Your task to perform on an android device: toggle notifications settings in the gmail app Image 0: 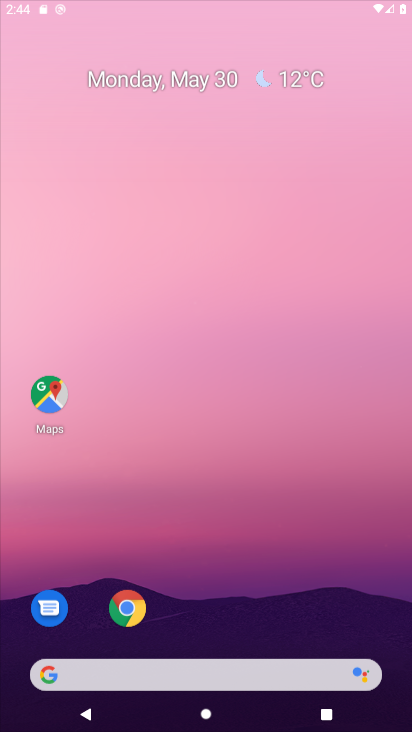
Step 0: click (181, 15)
Your task to perform on an android device: toggle notifications settings in the gmail app Image 1: 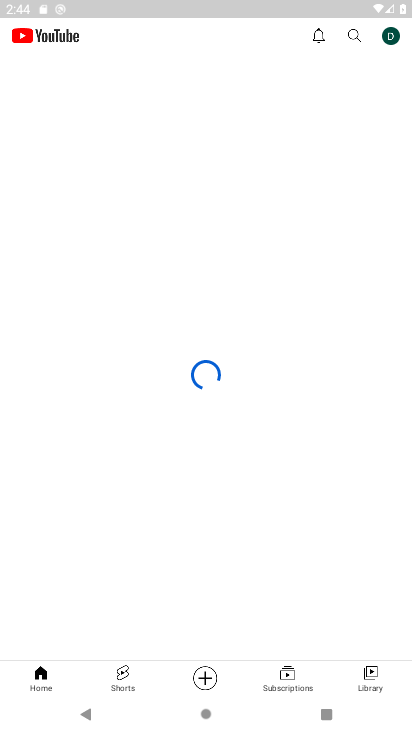
Step 1: press home button
Your task to perform on an android device: toggle notifications settings in the gmail app Image 2: 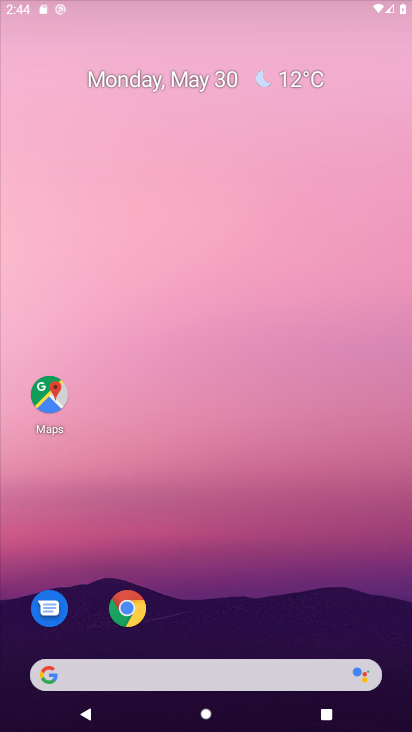
Step 2: drag from (301, 605) to (212, 20)
Your task to perform on an android device: toggle notifications settings in the gmail app Image 3: 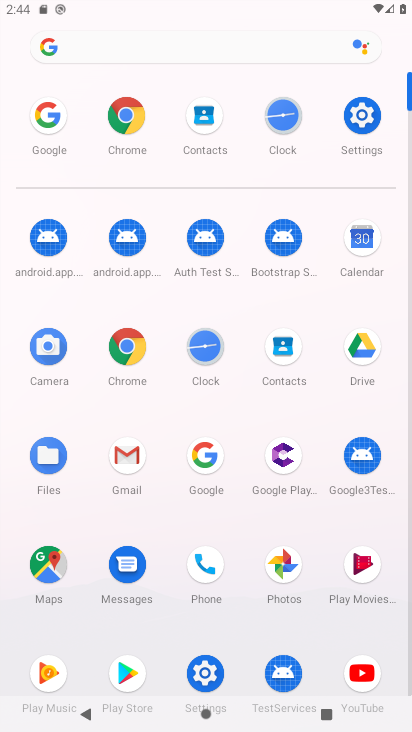
Step 3: click (360, 122)
Your task to perform on an android device: toggle notifications settings in the gmail app Image 4: 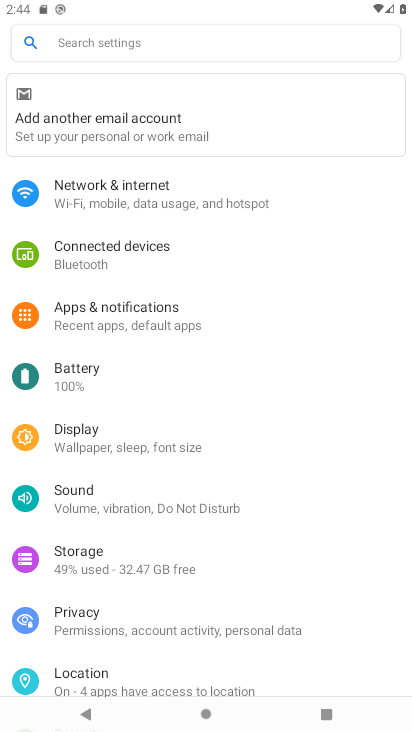
Step 4: press home button
Your task to perform on an android device: toggle notifications settings in the gmail app Image 5: 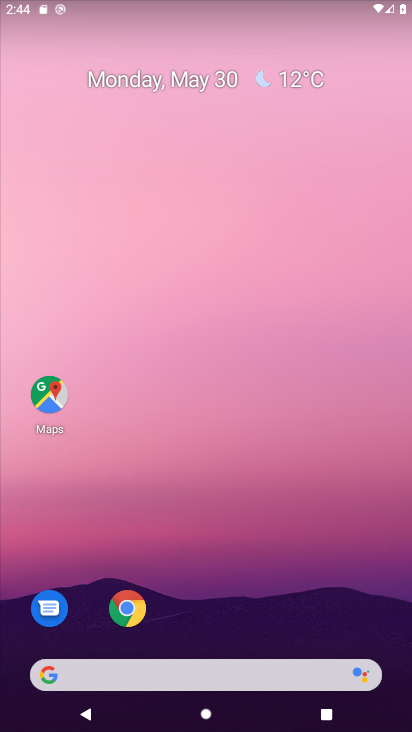
Step 5: drag from (234, 614) to (225, 11)
Your task to perform on an android device: toggle notifications settings in the gmail app Image 6: 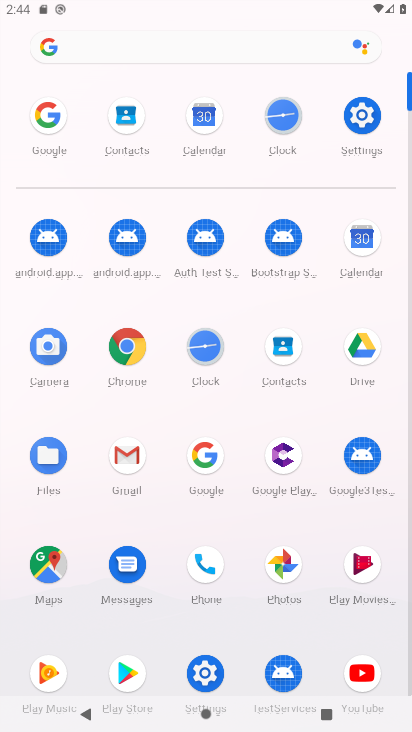
Step 6: click (139, 447)
Your task to perform on an android device: toggle notifications settings in the gmail app Image 7: 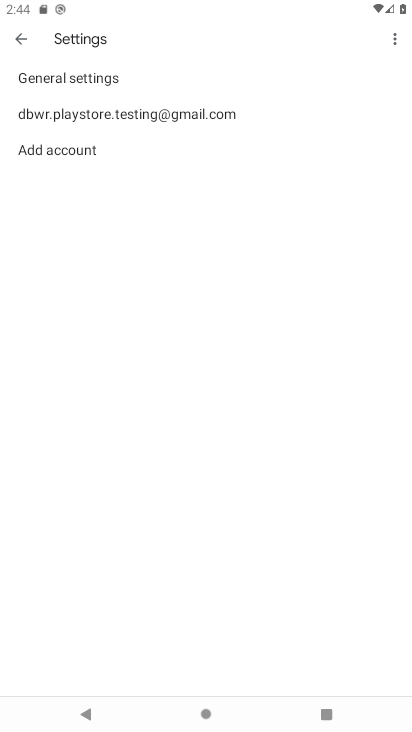
Step 7: click (63, 112)
Your task to perform on an android device: toggle notifications settings in the gmail app Image 8: 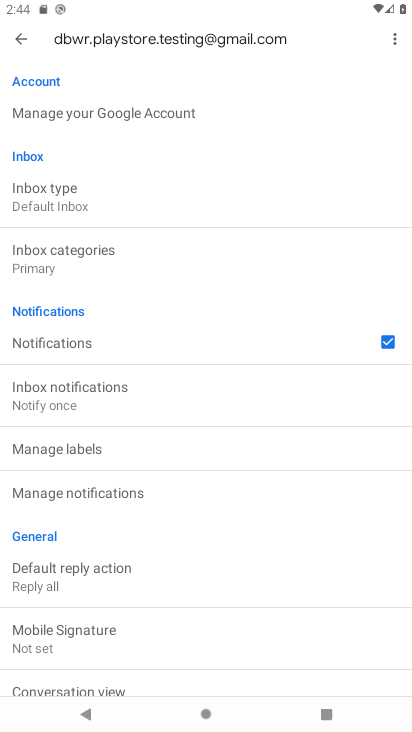
Step 8: click (118, 341)
Your task to perform on an android device: toggle notifications settings in the gmail app Image 9: 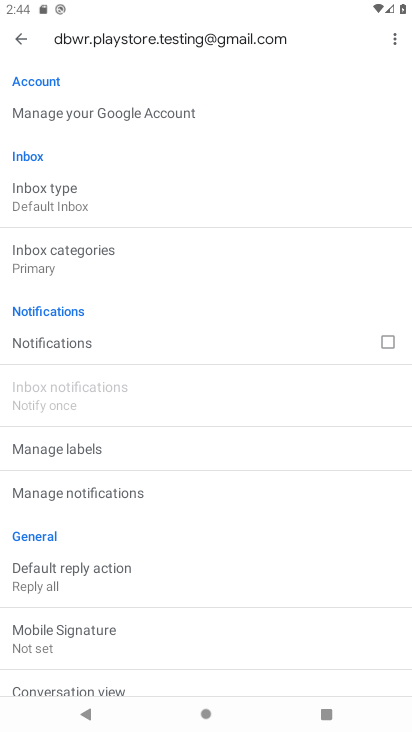
Step 9: task complete